Your task to perform on an android device: add a contact in the contacts app Image 0: 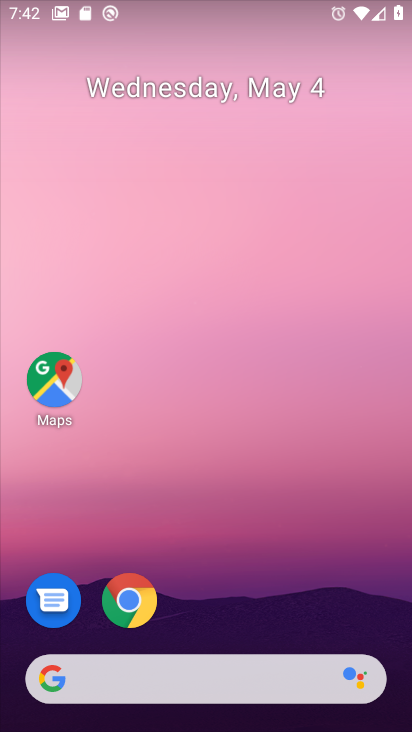
Step 0: drag from (234, 406) to (373, 48)
Your task to perform on an android device: add a contact in the contacts app Image 1: 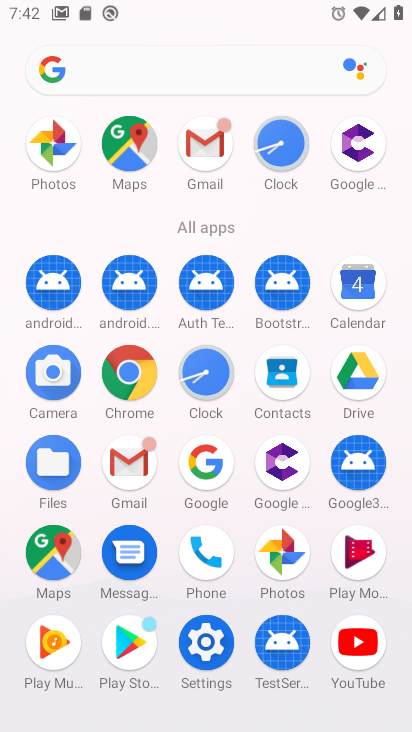
Step 1: click (277, 375)
Your task to perform on an android device: add a contact in the contacts app Image 2: 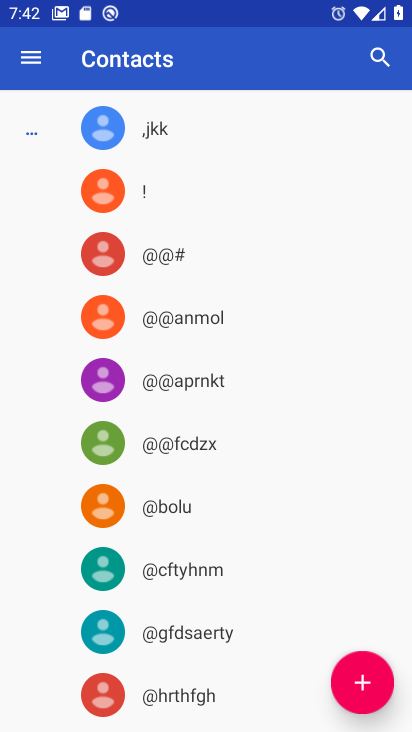
Step 2: click (346, 678)
Your task to perform on an android device: add a contact in the contacts app Image 3: 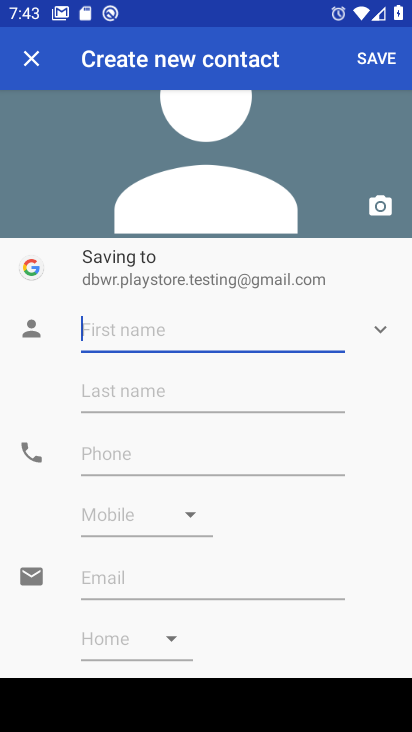
Step 3: click (194, 339)
Your task to perform on an android device: add a contact in the contacts app Image 4: 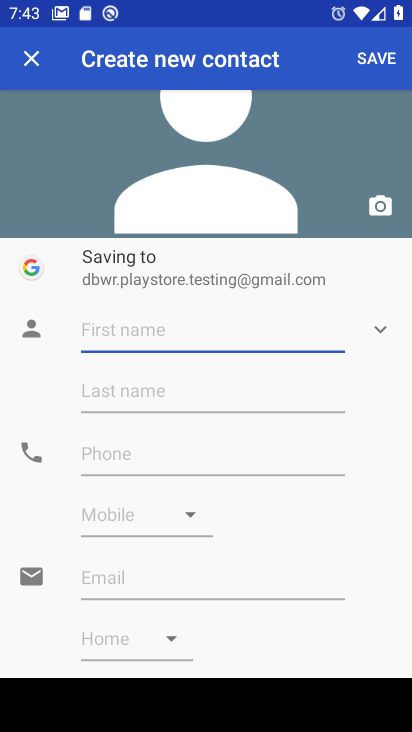
Step 4: type "ram"
Your task to perform on an android device: add a contact in the contacts app Image 5: 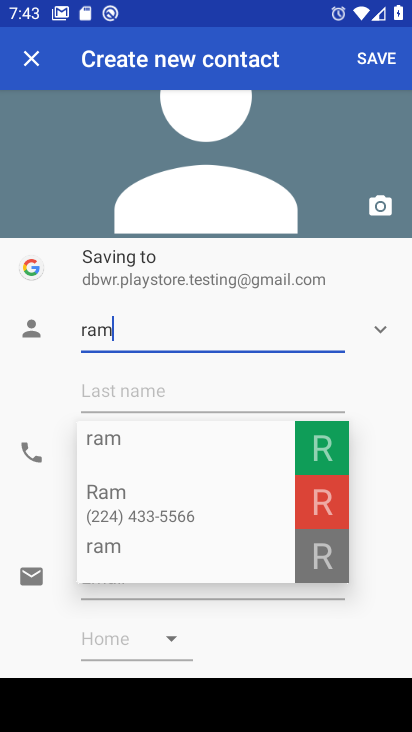
Step 5: click (374, 63)
Your task to perform on an android device: add a contact in the contacts app Image 6: 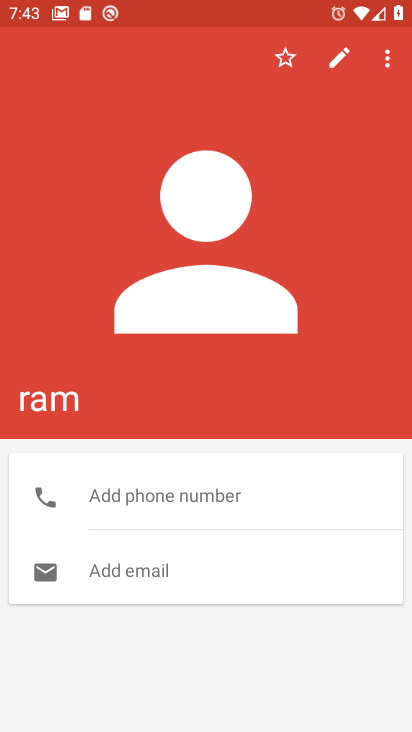
Step 6: task complete